Your task to perform on an android device: Open Google Maps and go to "Timeline" Image 0: 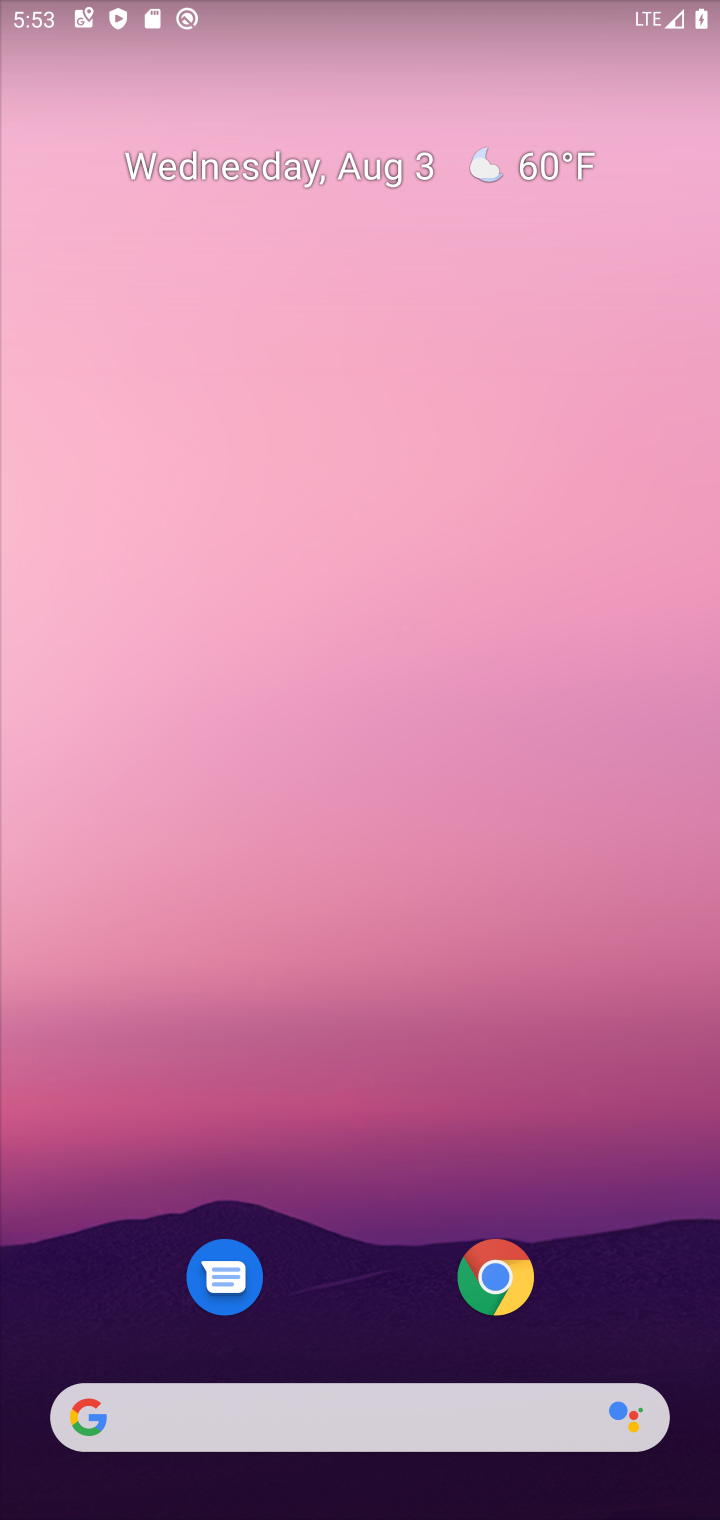
Step 0: drag from (259, 1281) to (448, 184)
Your task to perform on an android device: Open Google Maps and go to "Timeline" Image 1: 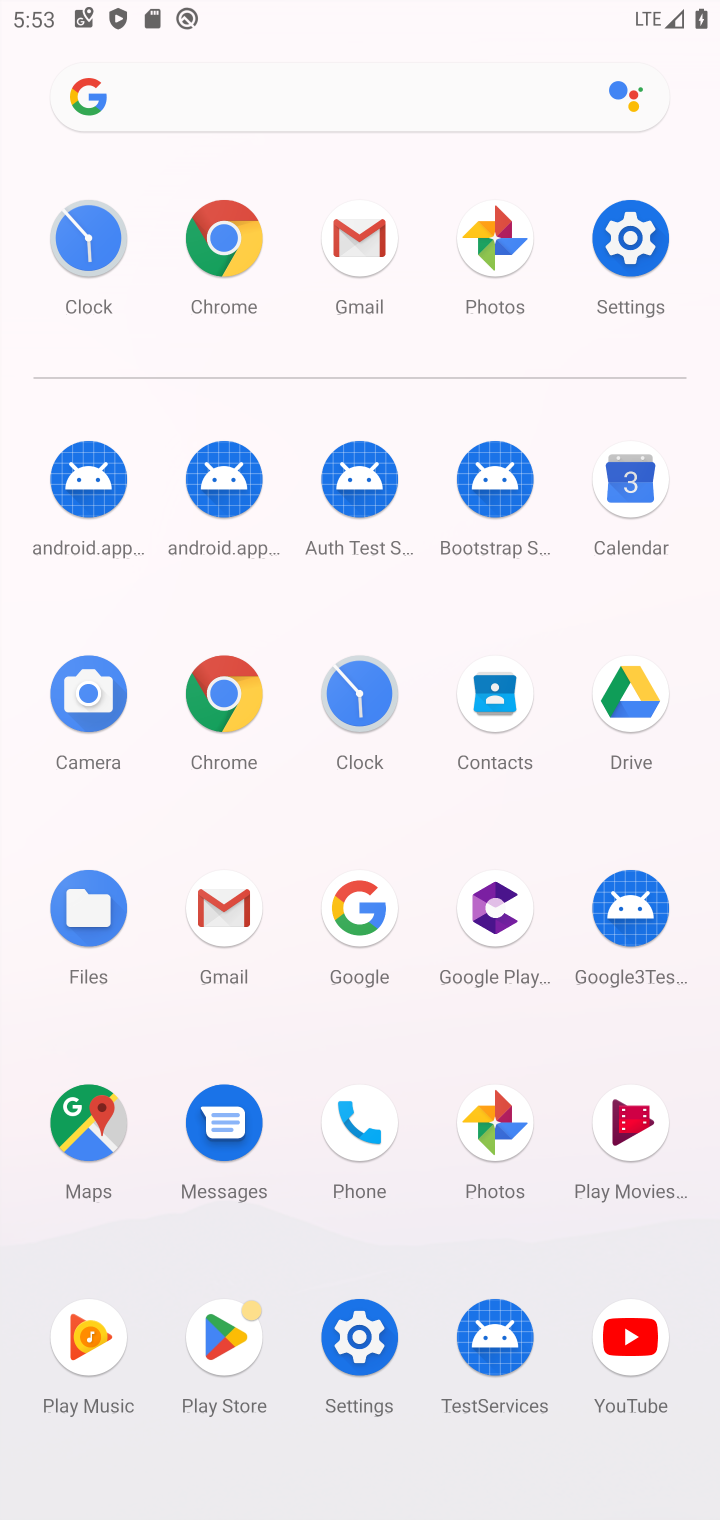
Step 1: click (69, 1109)
Your task to perform on an android device: Open Google Maps and go to "Timeline" Image 2: 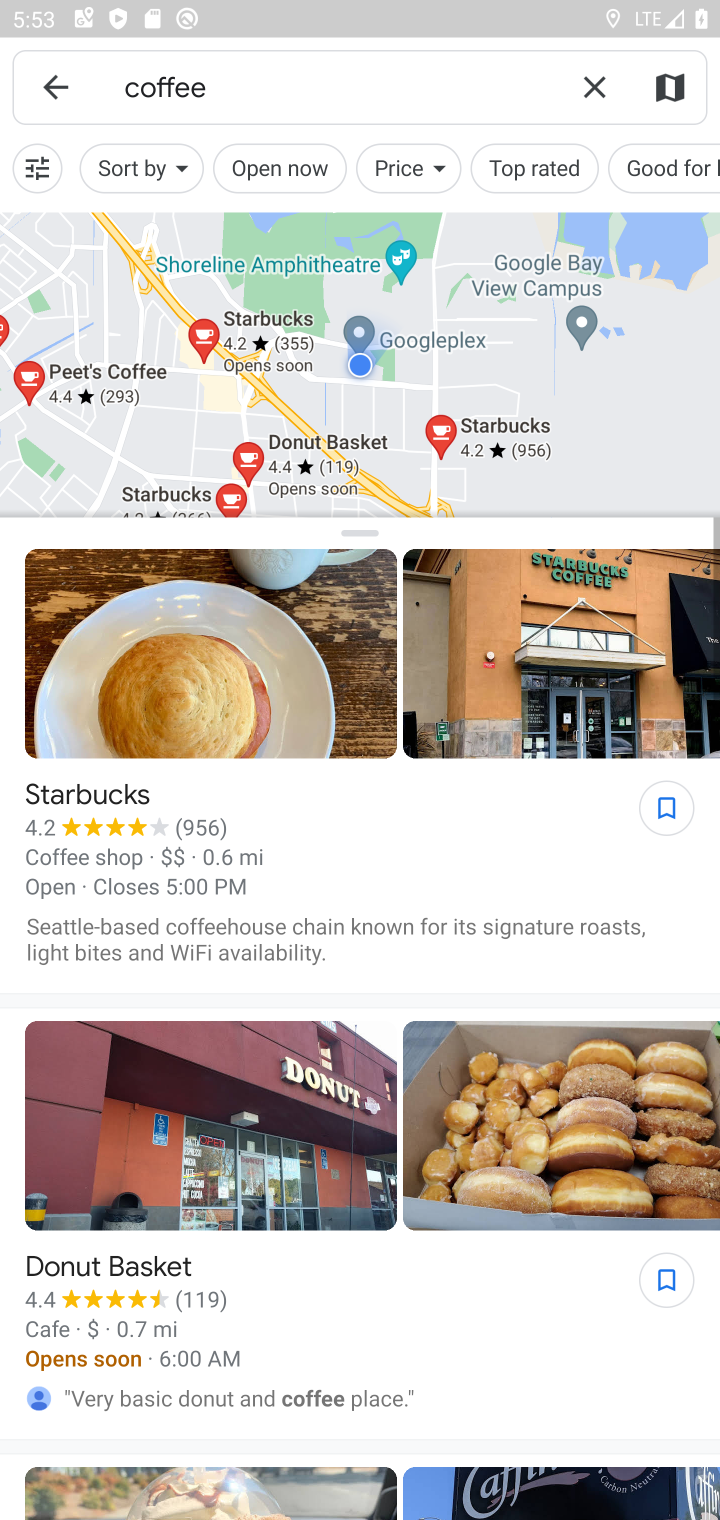
Step 2: click (76, 86)
Your task to perform on an android device: Open Google Maps and go to "Timeline" Image 3: 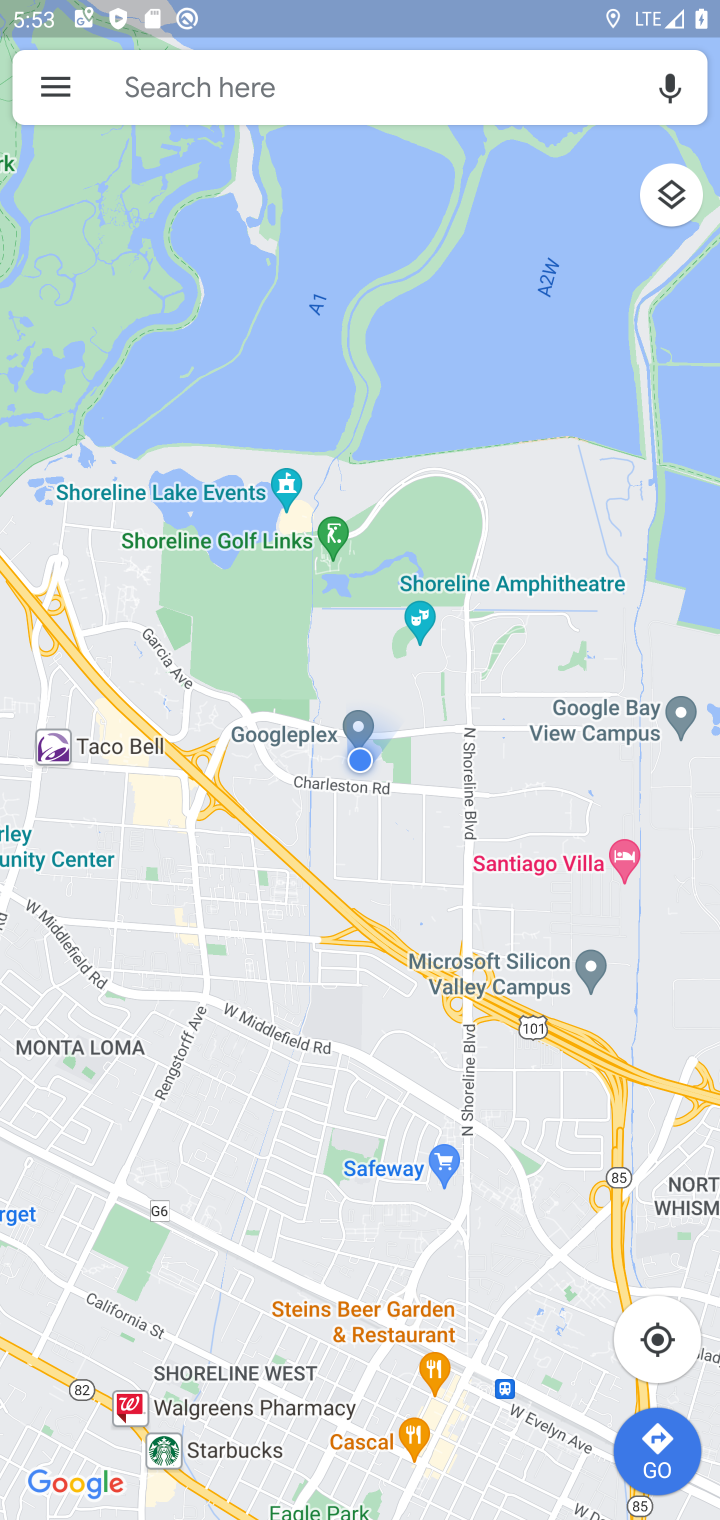
Step 3: click (55, 77)
Your task to perform on an android device: Open Google Maps and go to "Timeline" Image 4: 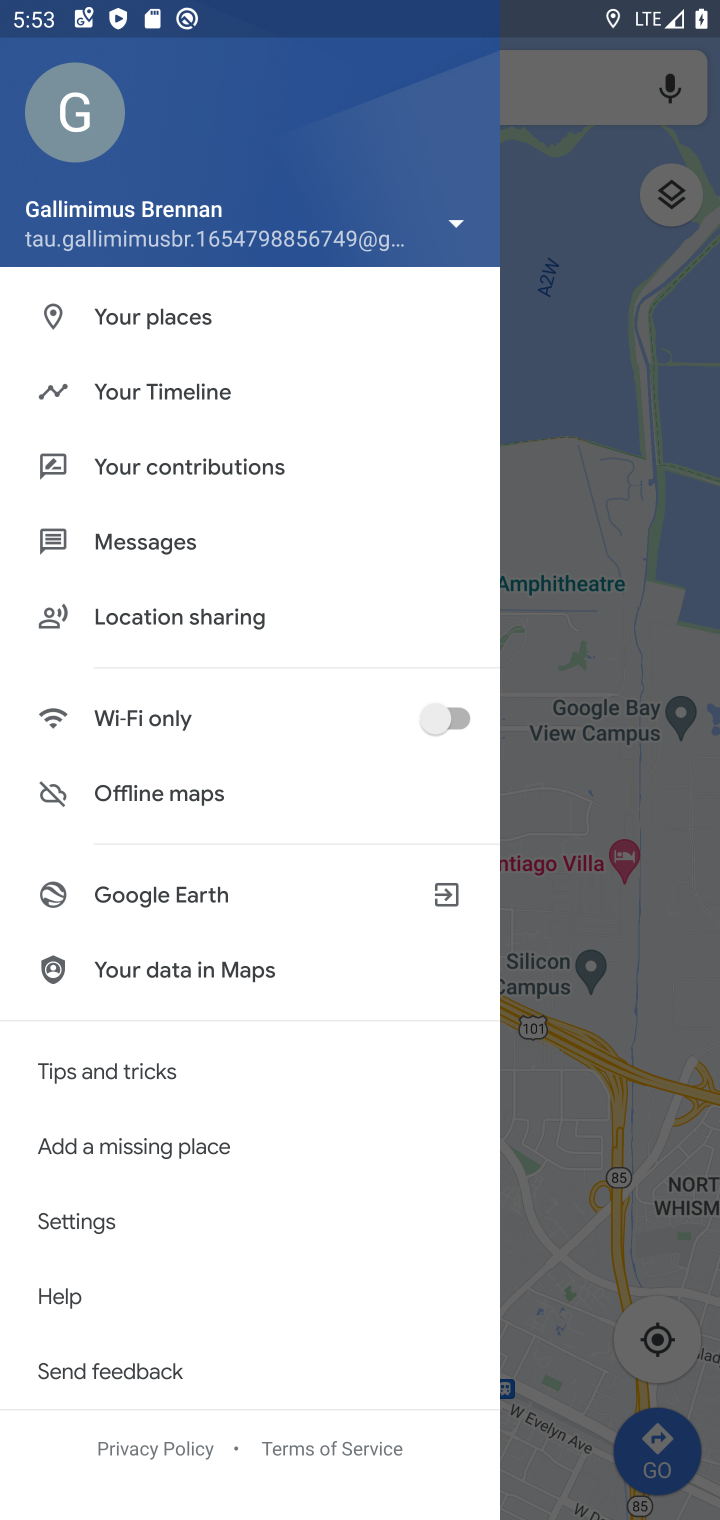
Step 4: click (181, 397)
Your task to perform on an android device: Open Google Maps and go to "Timeline" Image 5: 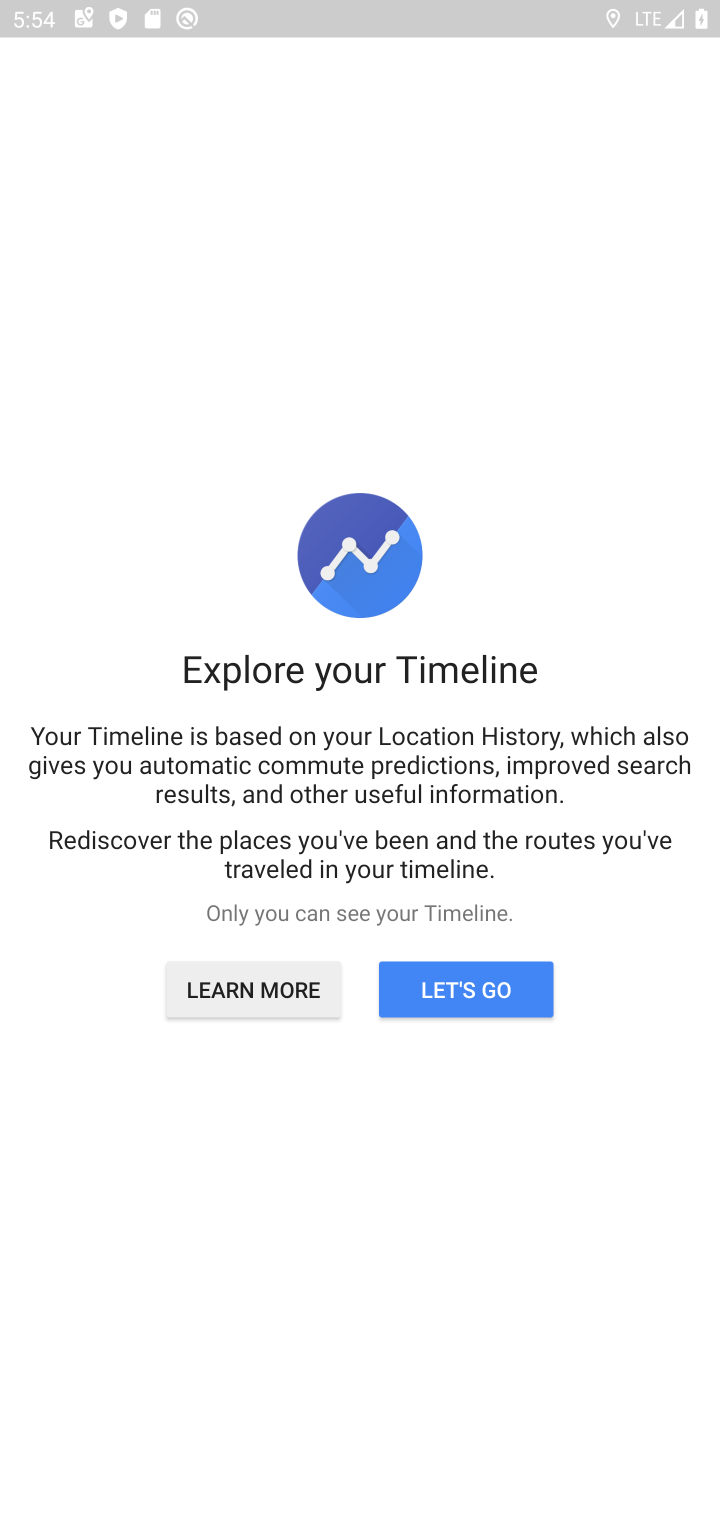
Step 5: click (471, 994)
Your task to perform on an android device: Open Google Maps and go to "Timeline" Image 6: 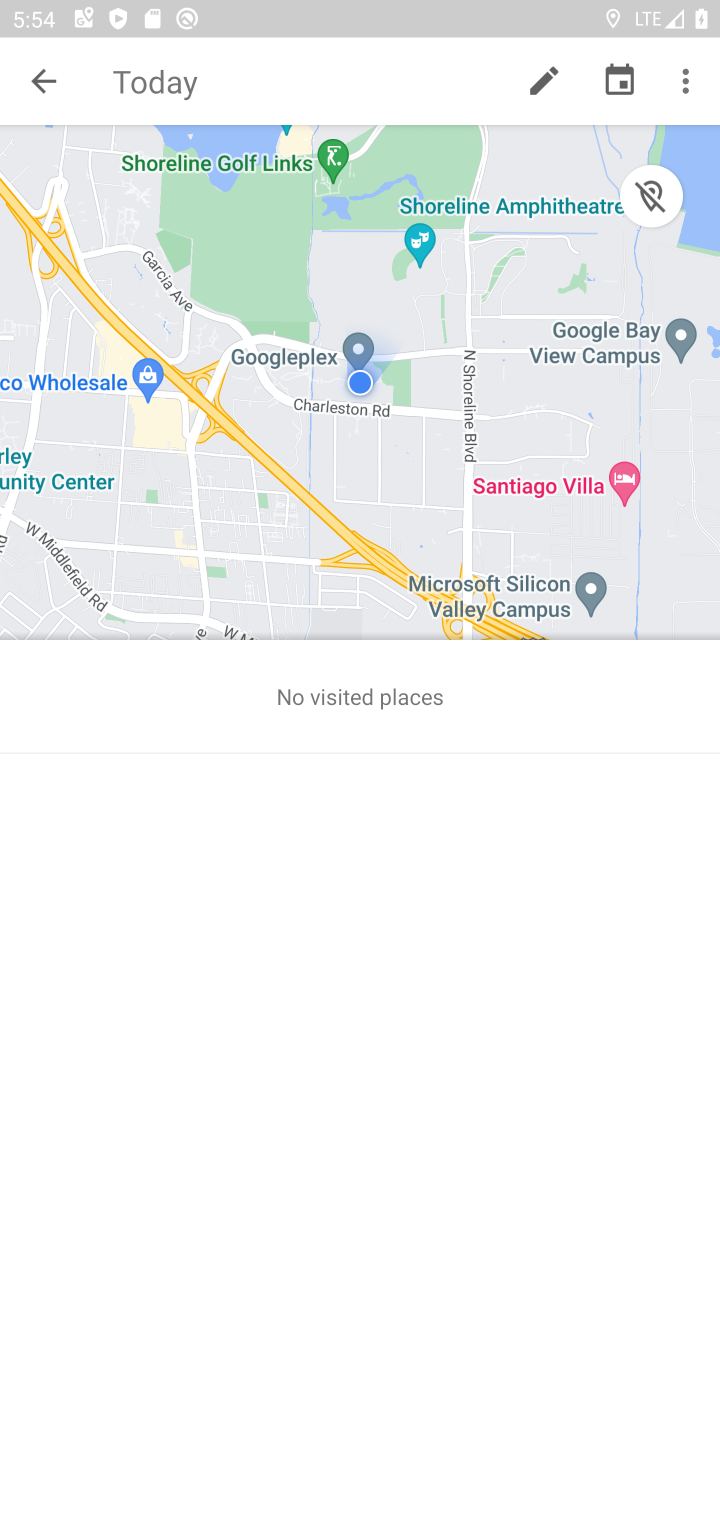
Step 6: task complete